Your task to perform on an android device: snooze an email in the gmail app Image 0: 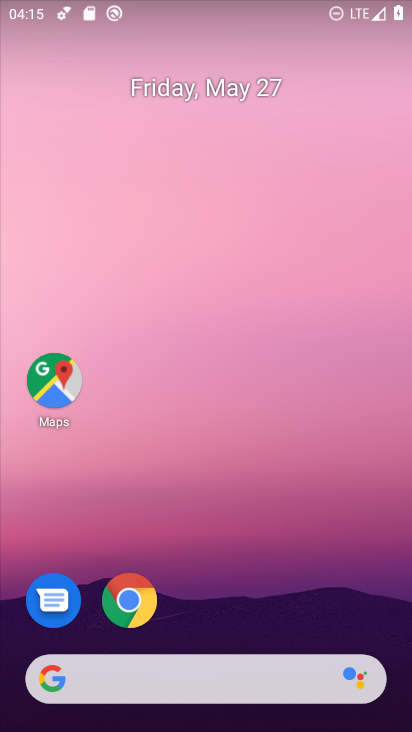
Step 0: drag from (163, 726) to (166, 162)
Your task to perform on an android device: snooze an email in the gmail app Image 1: 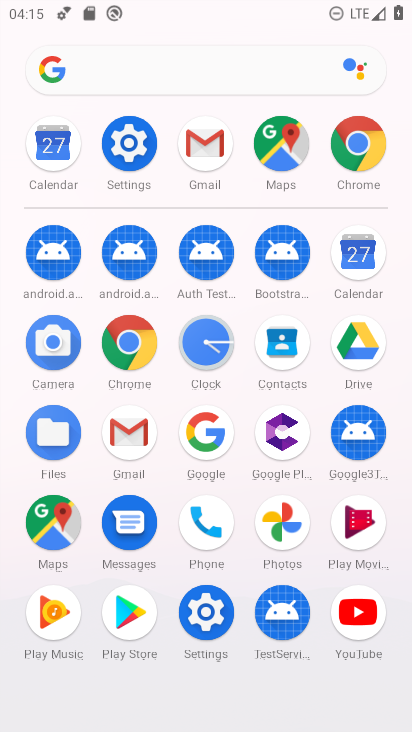
Step 1: click (129, 431)
Your task to perform on an android device: snooze an email in the gmail app Image 2: 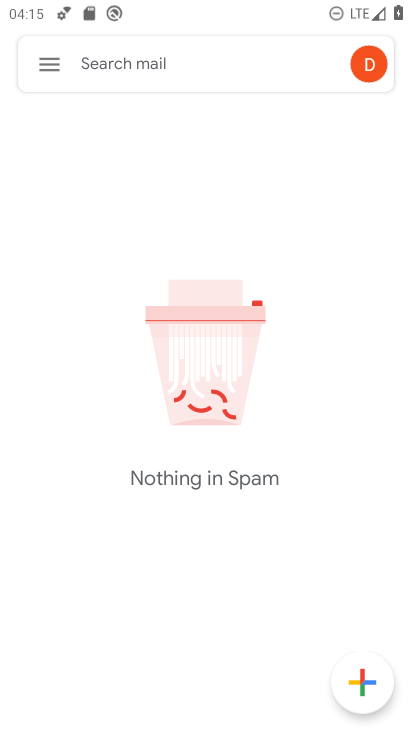
Step 2: click (45, 63)
Your task to perform on an android device: snooze an email in the gmail app Image 3: 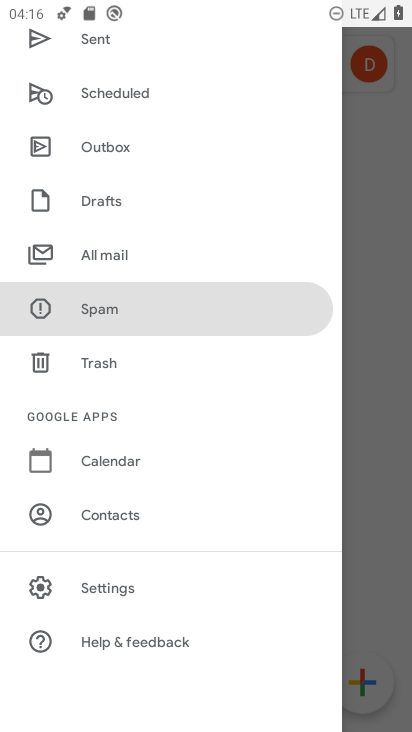
Step 3: drag from (179, 112) to (189, 559)
Your task to perform on an android device: snooze an email in the gmail app Image 4: 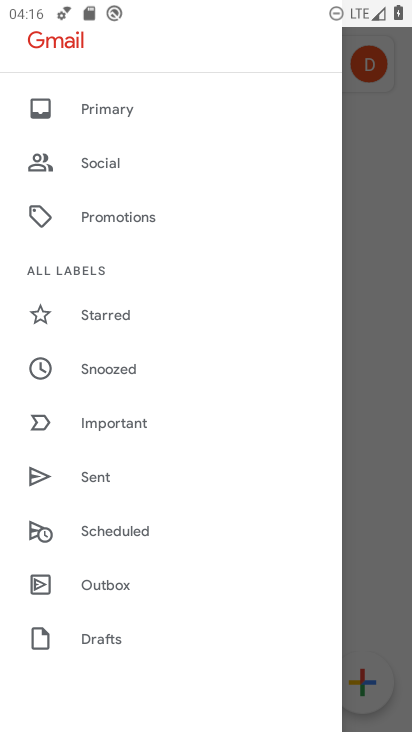
Step 4: drag from (119, 112) to (138, 582)
Your task to perform on an android device: snooze an email in the gmail app Image 5: 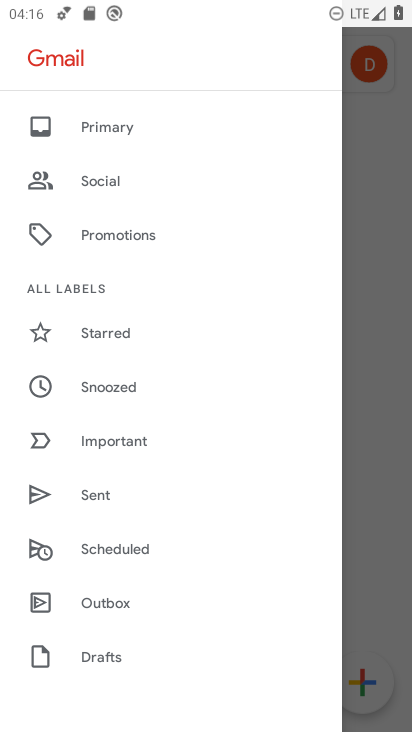
Step 5: click (106, 123)
Your task to perform on an android device: snooze an email in the gmail app Image 6: 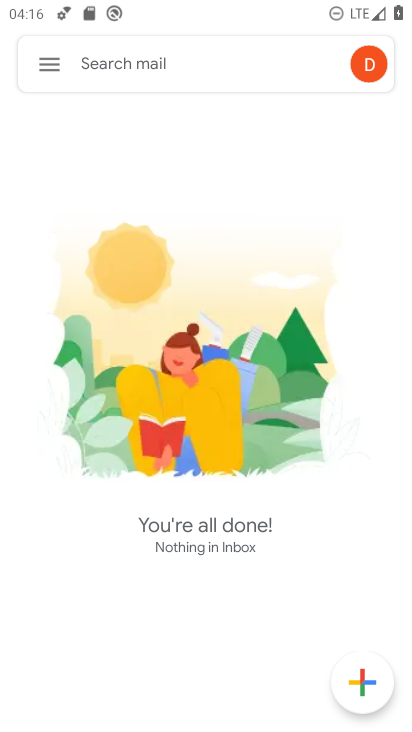
Step 6: task complete